Your task to perform on an android device: Do I have any events this weekend? Image 0: 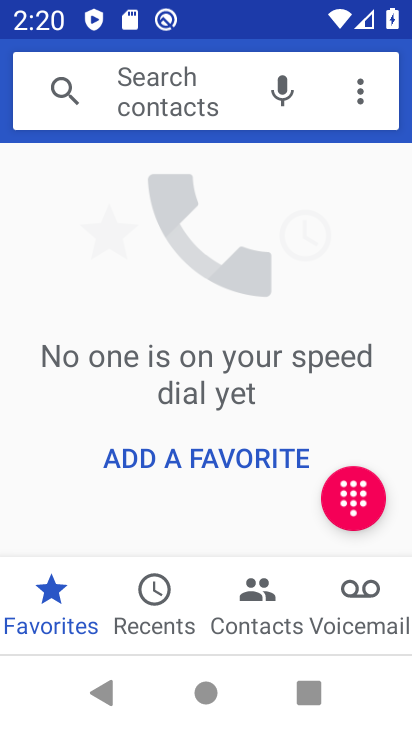
Step 0: press home button
Your task to perform on an android device: Do I have any events this weekend? Image 1: 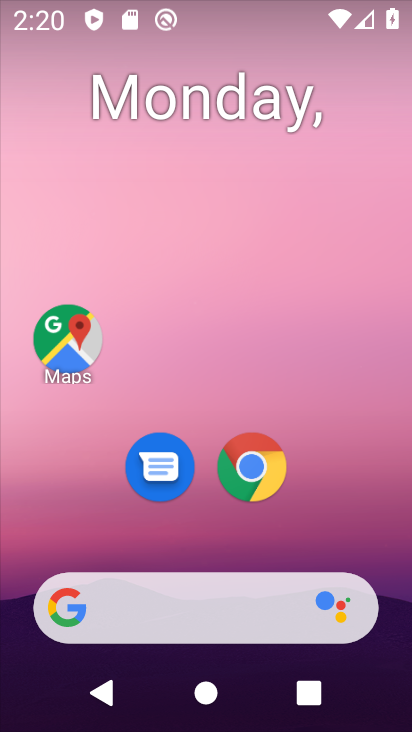
Step 1: drag from (378, 544) to (402, 2)
Your task to perform on an android device: Do I have any events this weekend? Image 2: 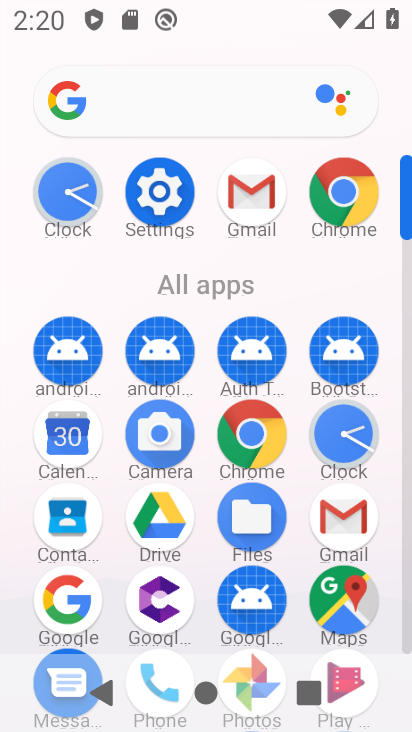
Step 2: click (63, 429)
Your task to perform on an android device: Do I have any events this weekend? Image 3: 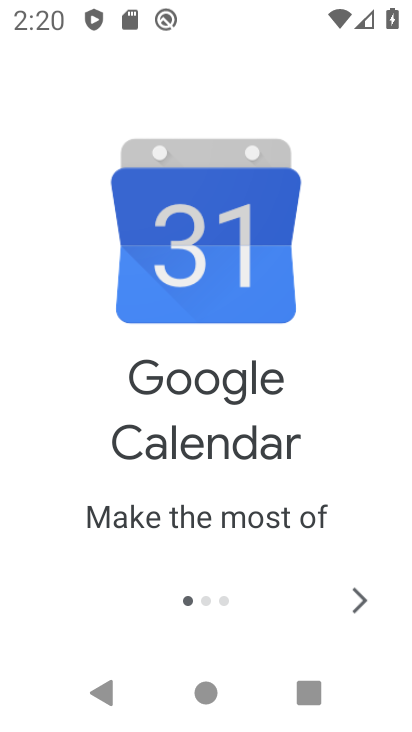
Step 3: click (357, 613)
Your task to perform on an android device: Do I have any events this weekend? Image 4: 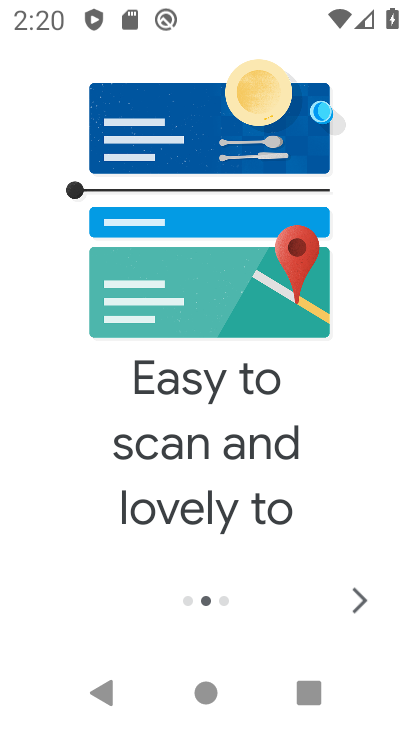
Step 4: click (357, 613)
Your task to perform on an android device: Do I have any events this weekend? Image 5: 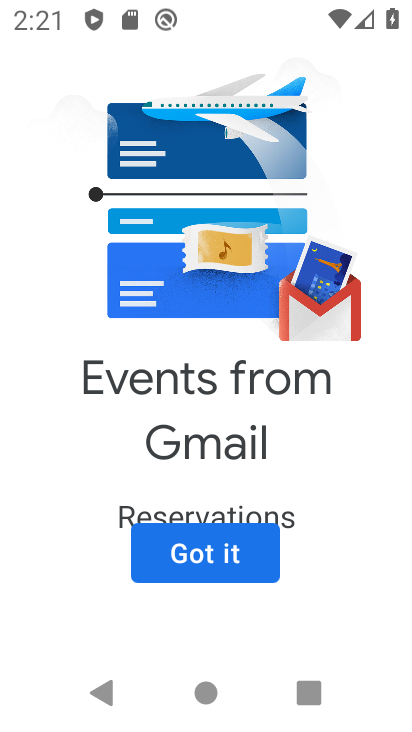
Step 5: click (357, 613)
Your task to perform on an android device: Do I have any events this weekend? Image 6: 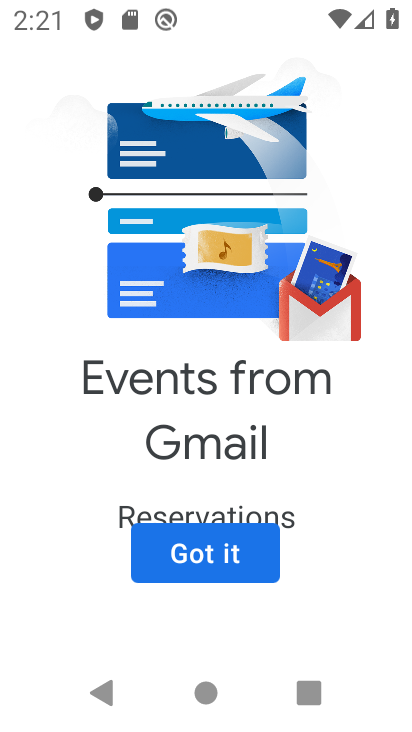
Step 6: click (221, 569)
Your task to perform on an android device: Do I have any events this weekend? Image 7: 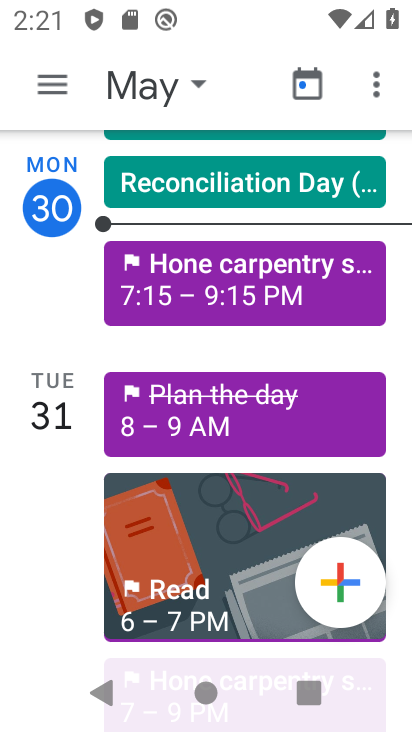
Step 7: click (55, 92)
Your task to perform on an android device: Do I have any events this weekend? Image 8: 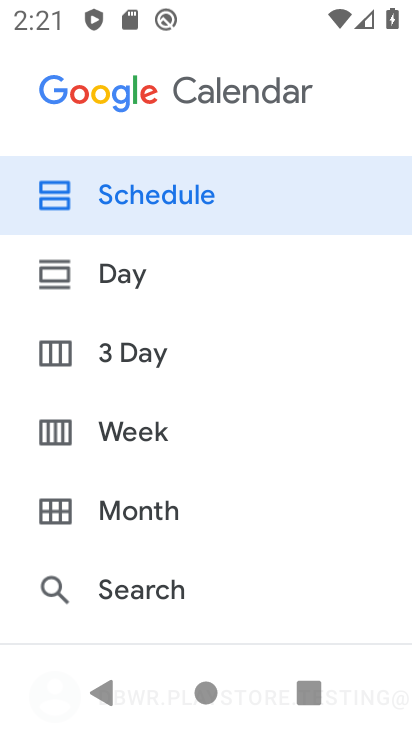
Step 8: drag from (142, 542) to (116, 161)
Your task to perform on an android device: Do I have any events this weekend? Image 9: 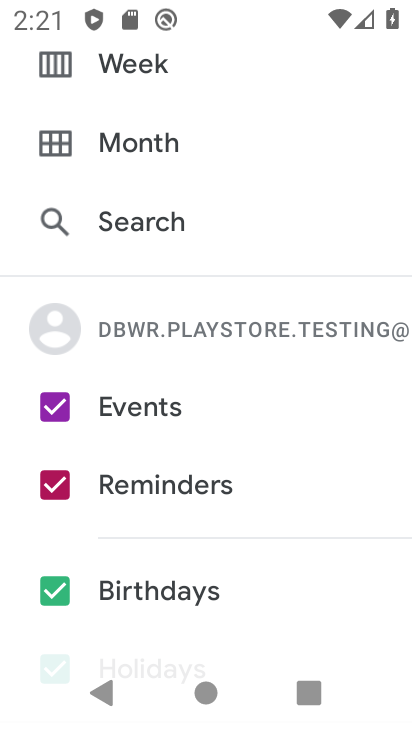
Step 9: drag from (170, 573) to (176, 283)
Your task to perform on an android device: Do I have any events this weekend? Image 10: 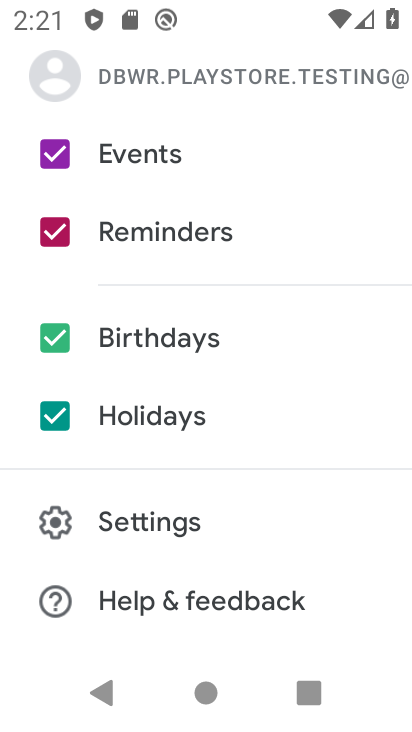
Step 10: click (65, 415)
Your task to perform on an android device: Do I have any events this weekend? Image 11: 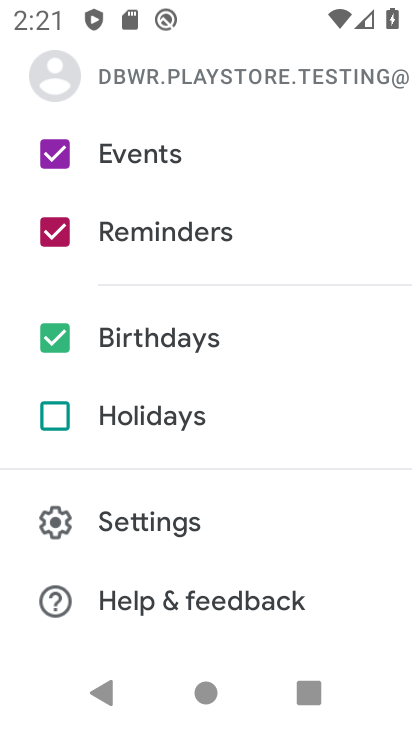
Step 11: click (60, 341)
Your task to perform on an android device: Do I have any events this weekend? Image 12: 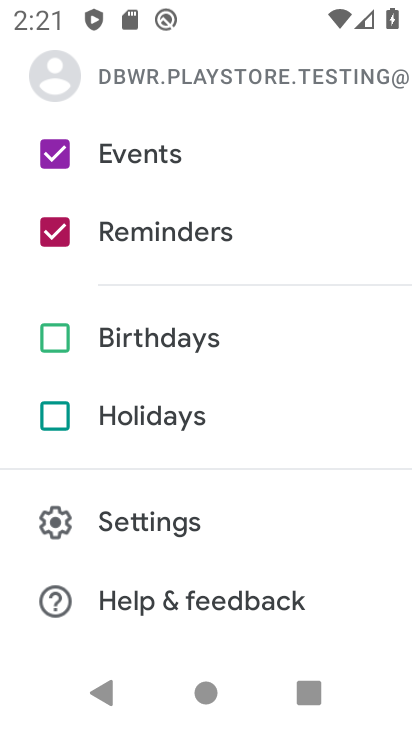
Step 12: click (56, 234)
Your task to perform on an android device: Do I have any events this weekend? Image 13: 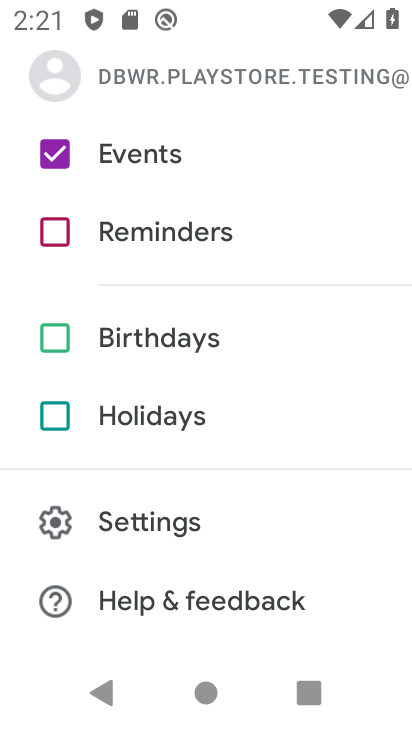
Step 13: drag from (224, 134) to (217, 571)
Your task to perform on an android device: Do I have any events this weekend? Image 14: 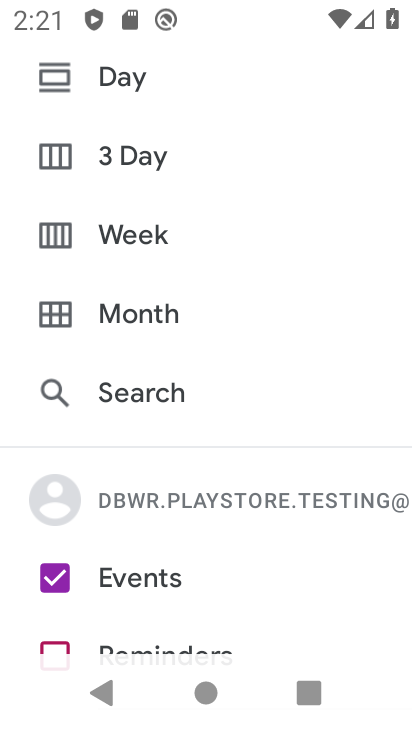
Step 14: click (177, 236)
Your task to perform on an android device: Do I have any events this weekend? Image 15: 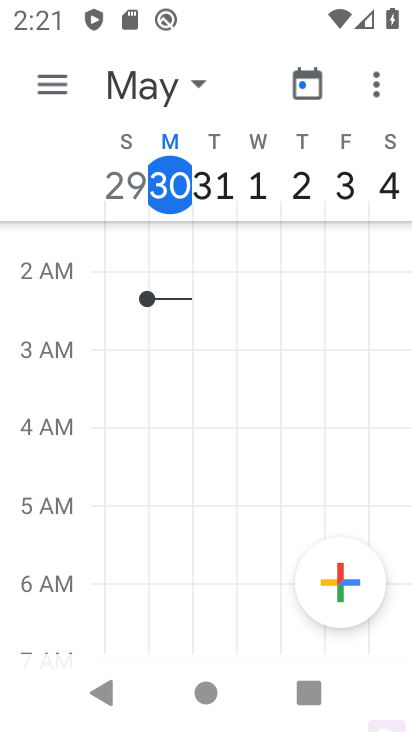
Step 15: click (389, 186)
Your task to perform on an android device: Do I have any events this weekend? Image 16: 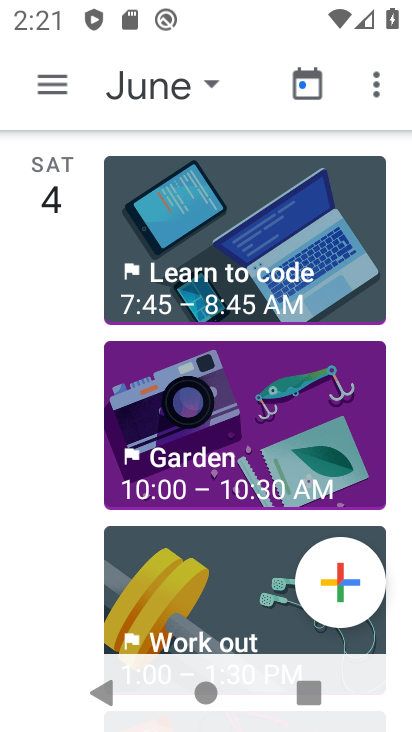
Step 16: task complete